Your task to perform on an android device: set the stopwatch Image 0: 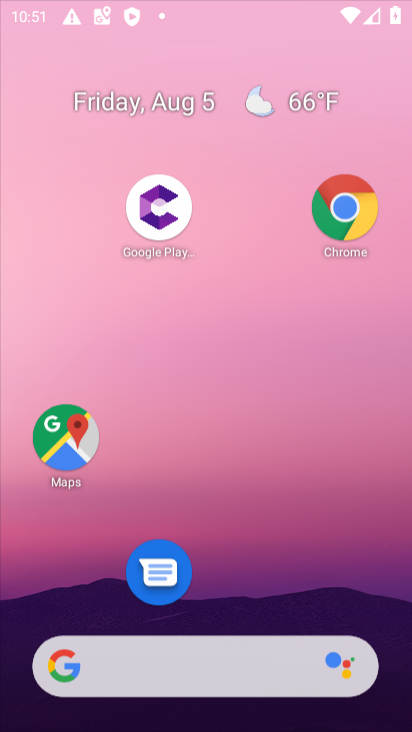
Step 0: press home button
Your task to perform on an android device: set the stopwatch Image 1: 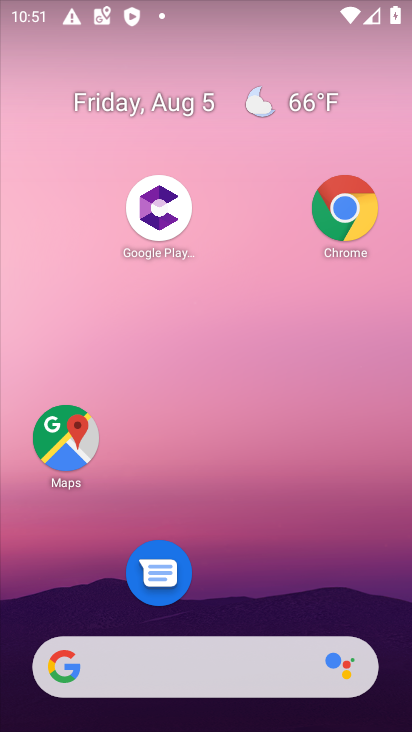
Step 1: drag from (227, 616) to (225, 22)
Your task to perform on an android device: set the stopwatch Image 2: 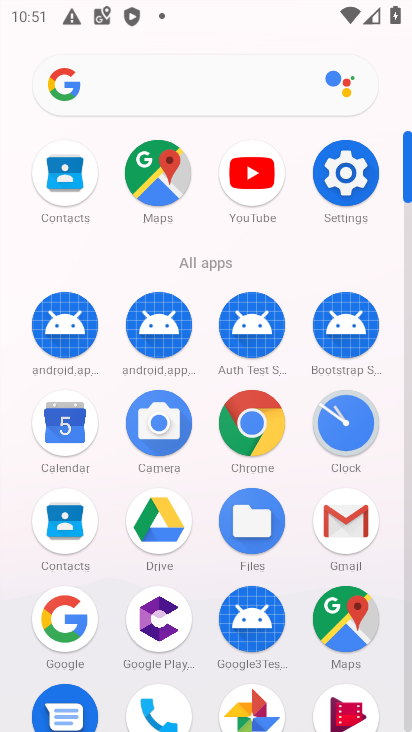
Step 2: click (343, 417)
Your task to perform on an android device: set the stopwatch Image 3: 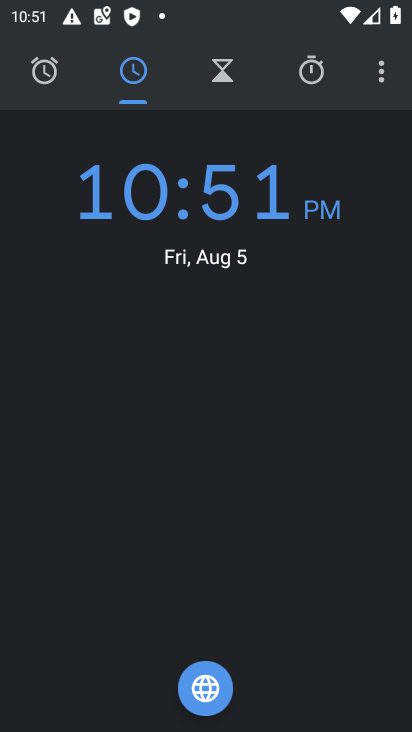
Step 3: click (311, 62)
Your task to perform on an android device: set the stopwatch Image 4: 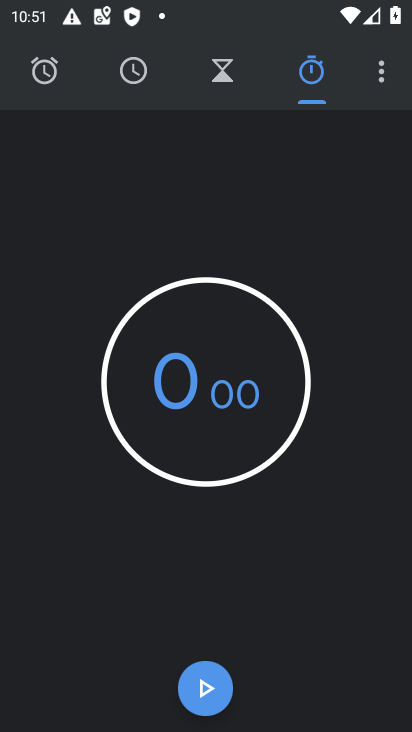
Step 4: click (208, 680)
Your task to perform on an android device: set the stopwatch Image 5: 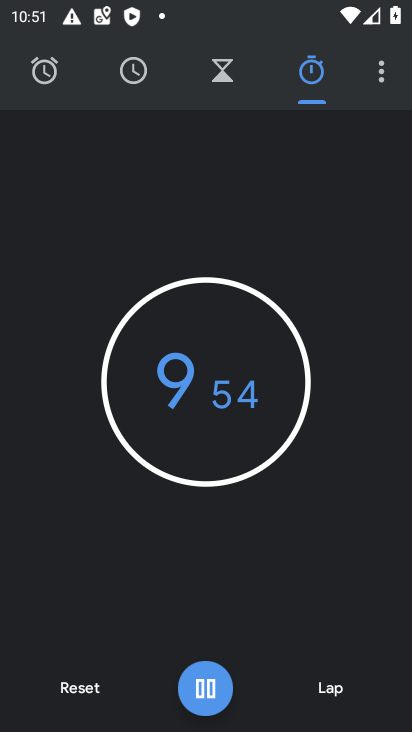
Step 5: task complete